Your task to perform on an android device: Open internet settings Image 0: 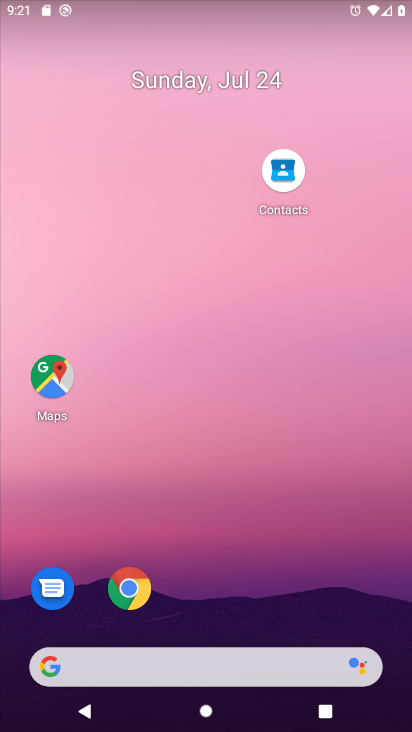
Step 0: drag from (209, 621) to (222, 17)
Your task to perform on an android device: Open internet settings Image 1: 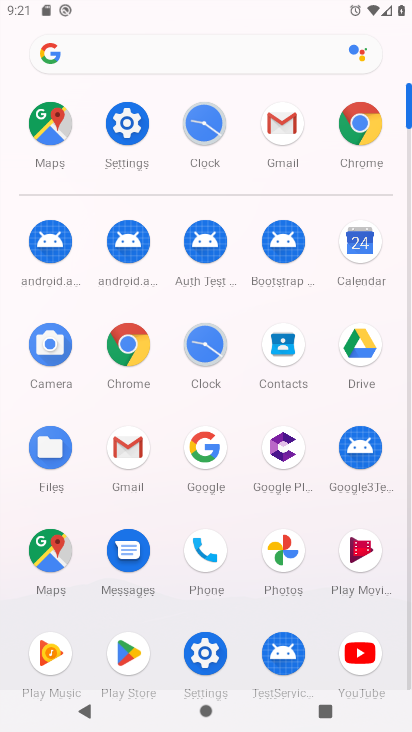
Step 1: click (125, 113)
Your task to perform on an android device: Open internet settings Image 2: 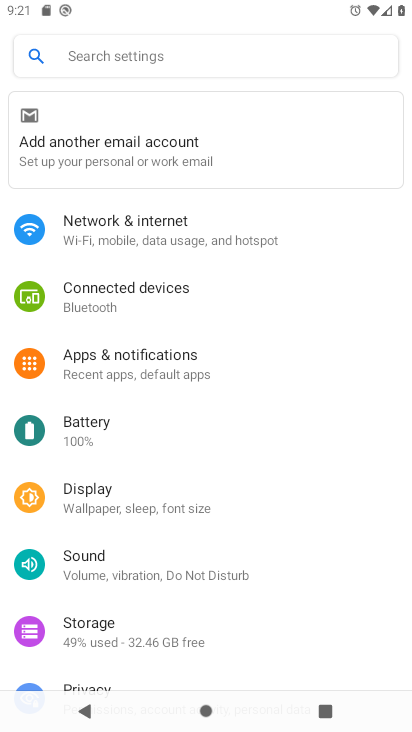
Step 2: click (199, 222)
Your task to perform on an android device: Open internet settings Image 3: 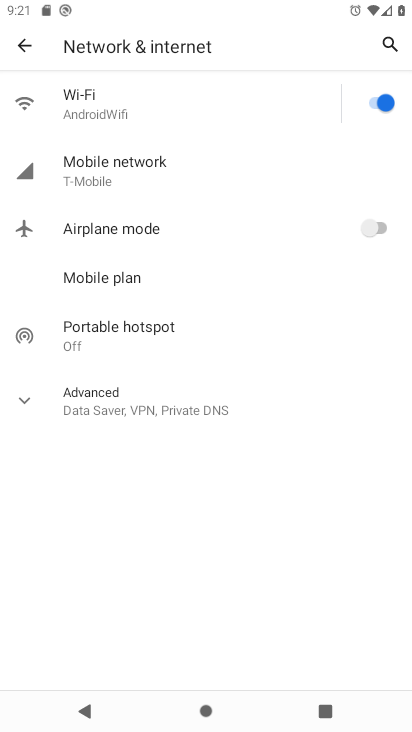
Step 3: click (29, 399)
Your task to perform on an android device: Open internet settings Image 4: 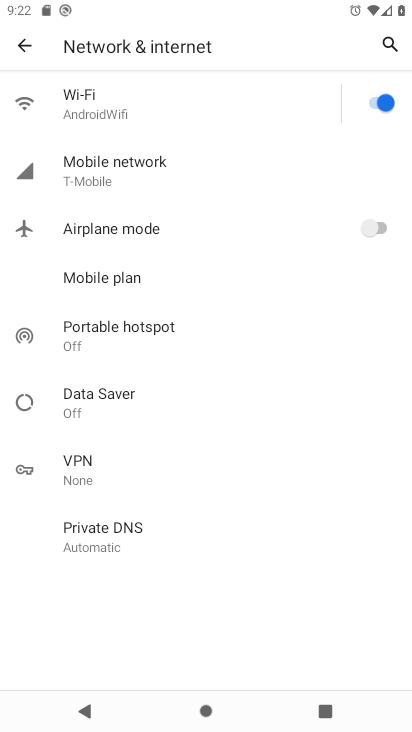
Step 4: task complete